Your task to perform on an android device: open a bookmark in the chrome app Image 0: 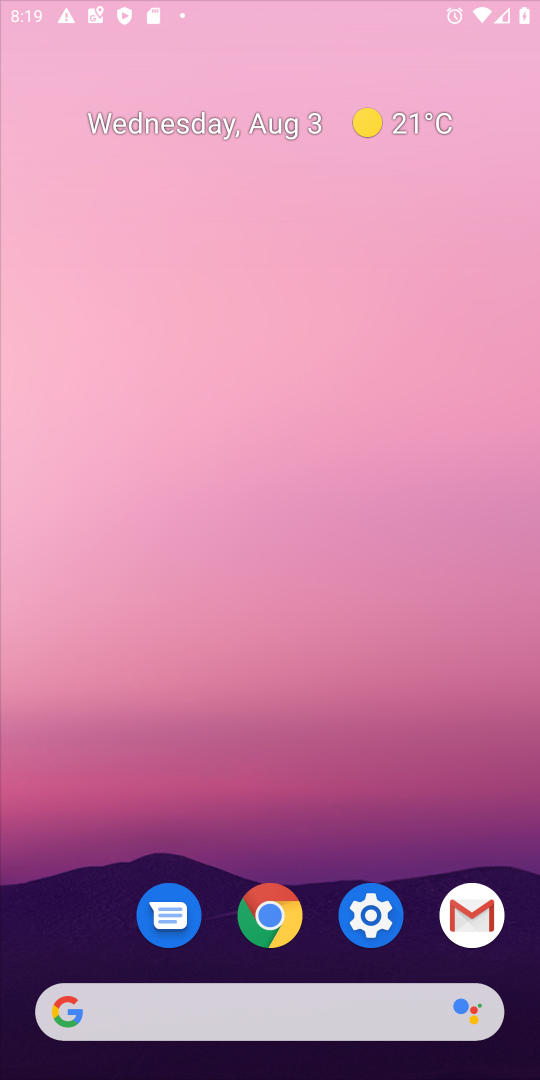
Step 0: press home button
Your task to perform on an android device: open a bookmark in the chrome app Image 1: 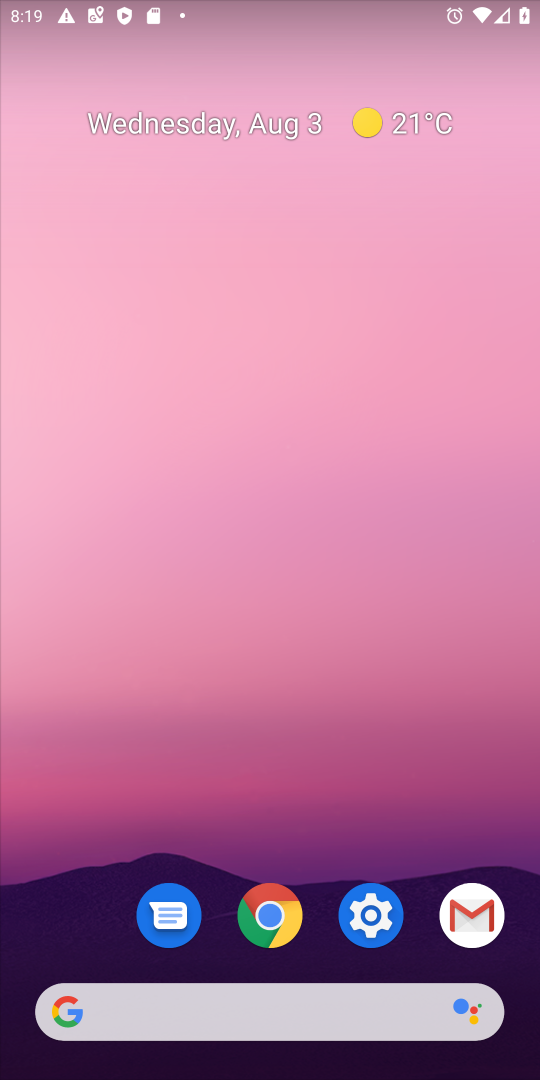
Step 1: drag from (313, 1035) to (319, 359)
Your task to perform on an android device: open a bookmark in the chrome app Image 2: 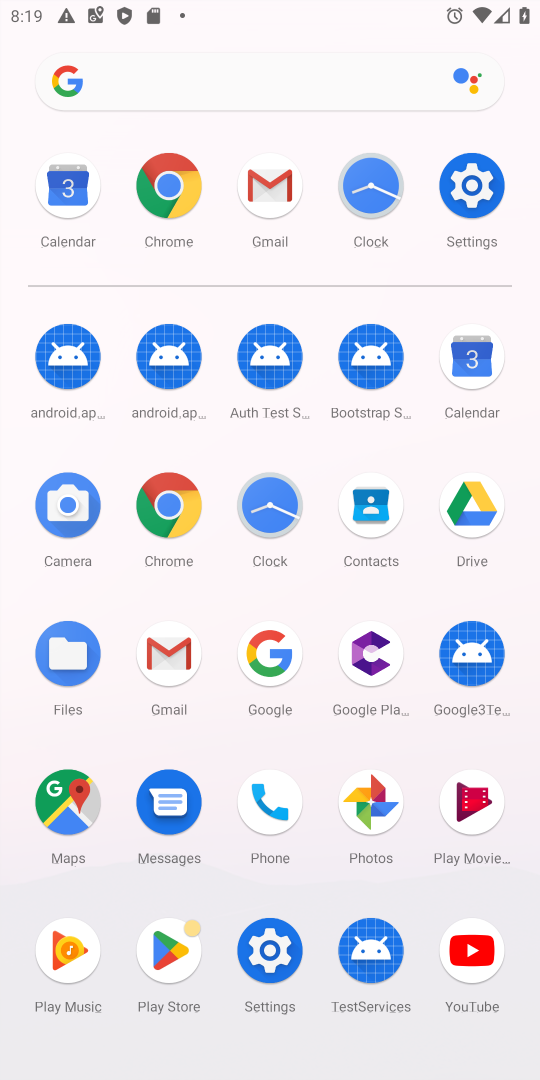
Step 2: click (169, 505)
Your task to perform on an android device: open a bookmark in the chrome app Image 3: 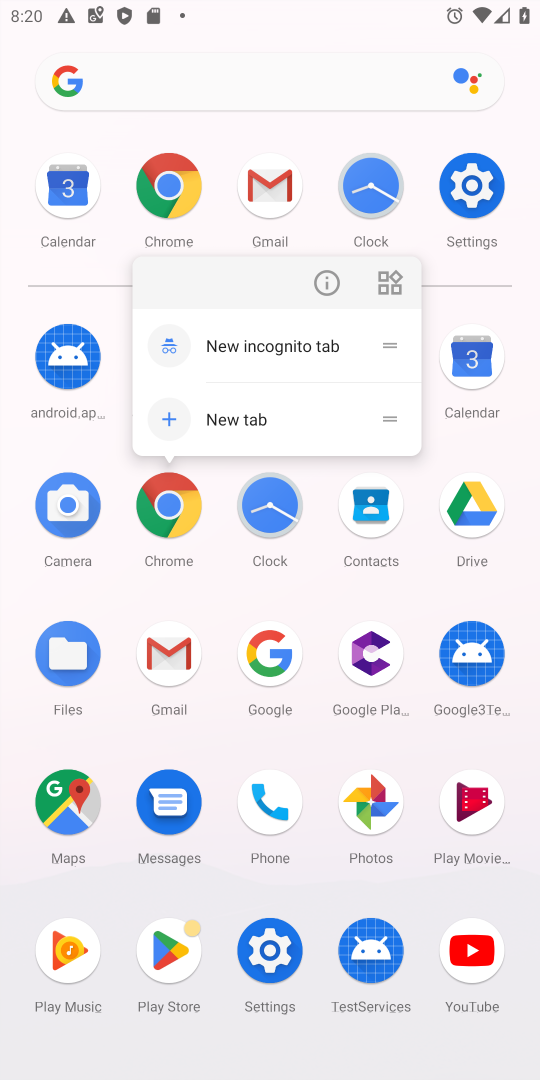
Step 3: click (153, 531)
Your task to perform on an android device: open a bookmark in the chrome app Image 4: 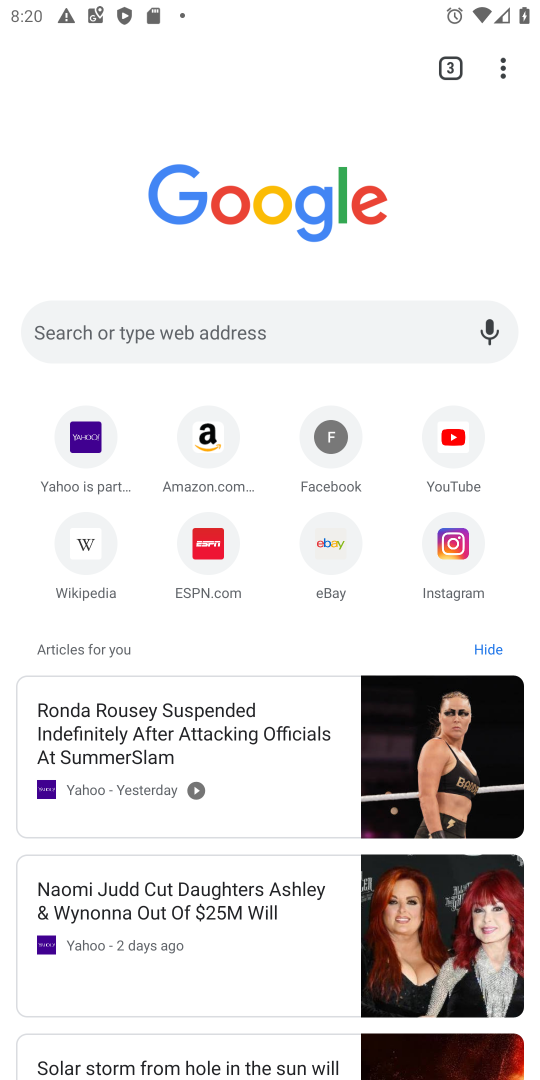
Step 4: click (504, 62)
Your task to perform on an android device: open a bookmark in the chrome app Image 5: 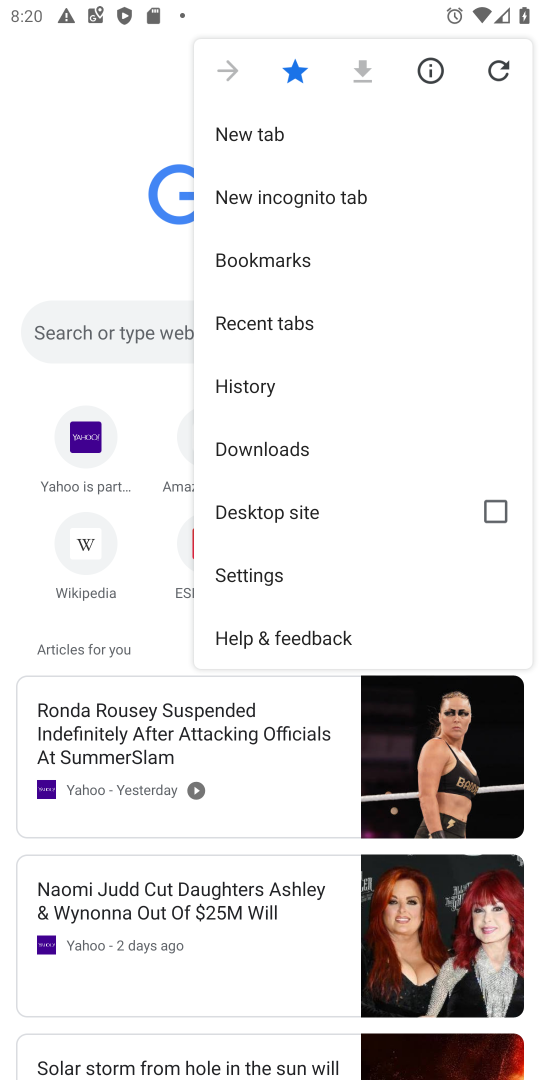
Step 5: click (320, 264)
Your task to perform on an android device: open a bookmark in the chrome app Image 6: 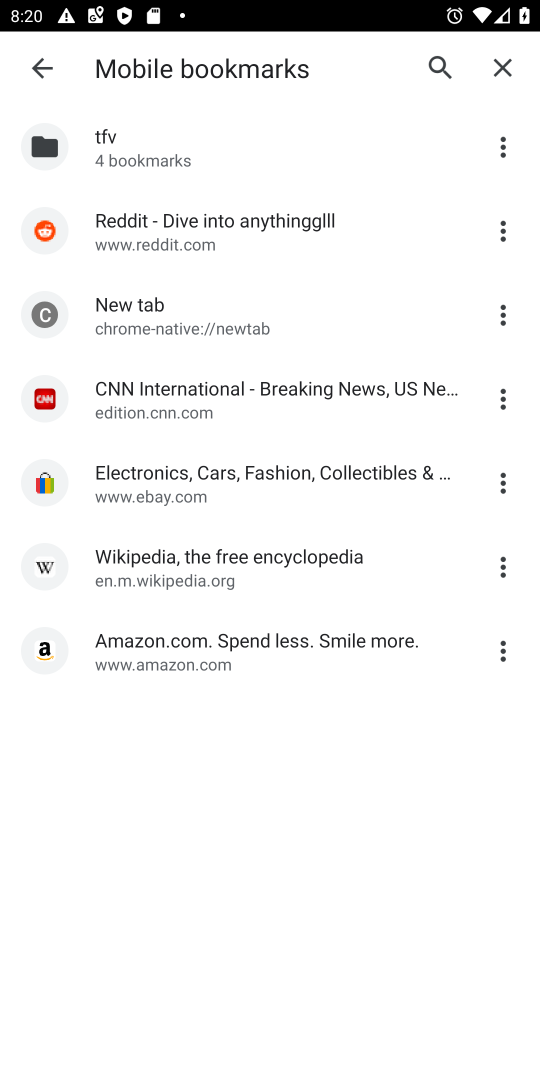
Step 6: click (221, 227)
Your task to perform on an android device: open a bookmark in the chrome app Image 7: 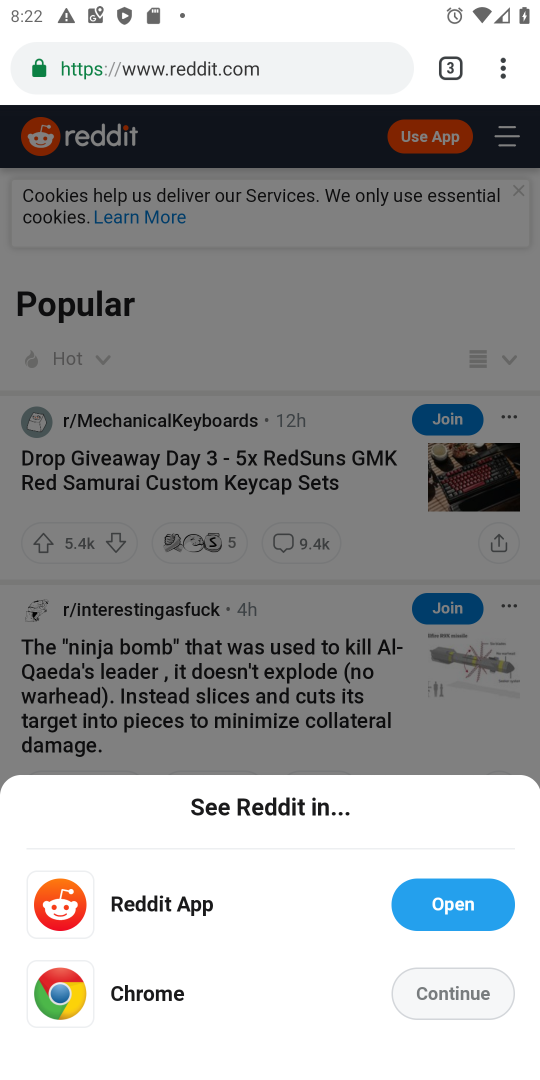
Step 7: task complete